Your task to perform on an android device: change text size in settings app Image 0: 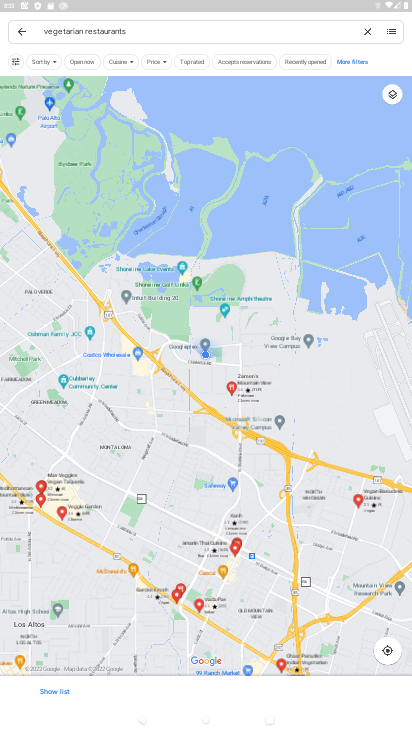
Step 0: press home button
Your task to perform on an android device: change text size in settings app Image 1: 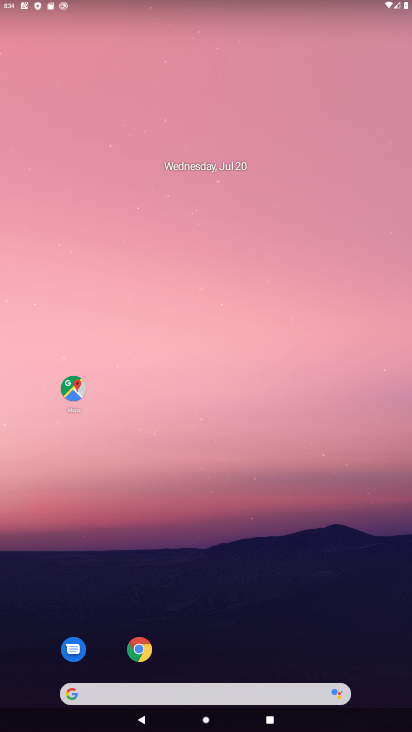
Step 1: drag from (245, 654) to (303, 144)
Your task to perform on an android device: change text size in settings app Image 2: 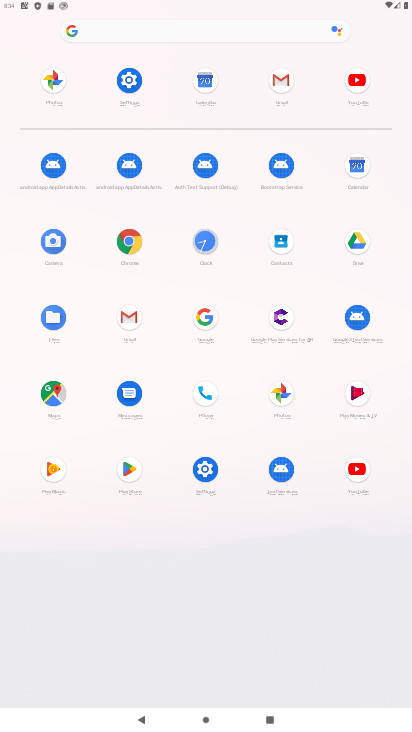
Step 2: click (127, 82)
Your task to perform on an android device: change text size in settings app Image 3: 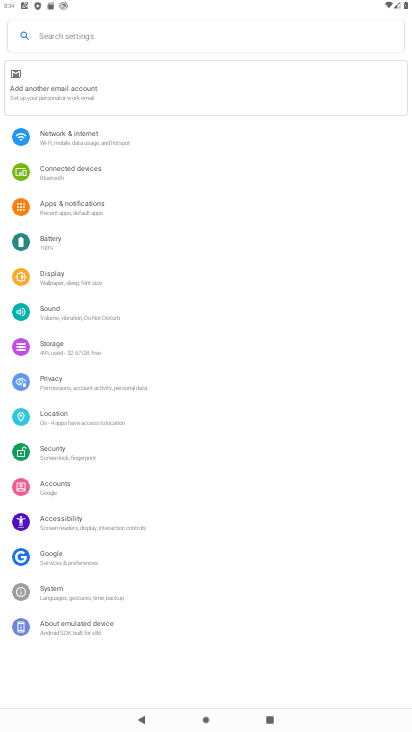
Step 3: task complete